Your task to perform on an android device: Toggle the flashlight Image 0: 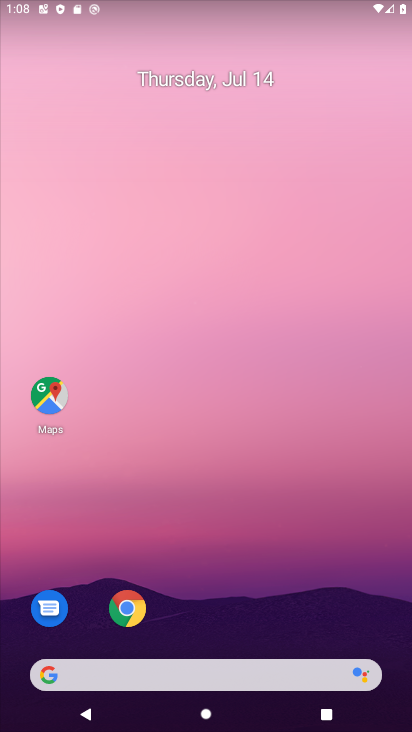
Step 0: drag from (219, 11) to (208, 425)
Your task to perform on an android device: Toggle the flashlight Image 1: 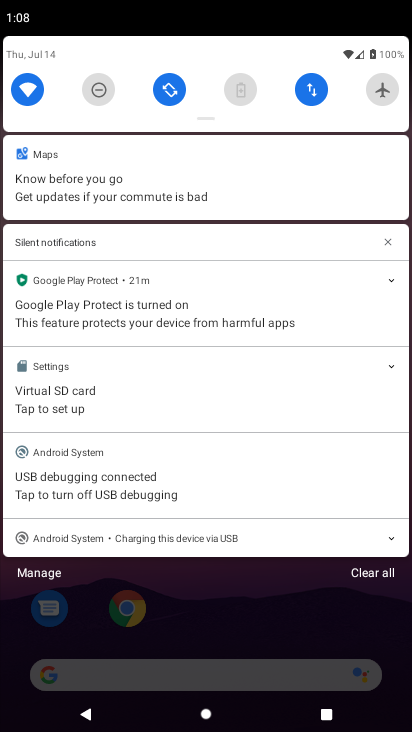
Step 1: drag from (202, 115) to (187, 399)
Your task to perform on an android device: Toggle the flashlight Image 2: 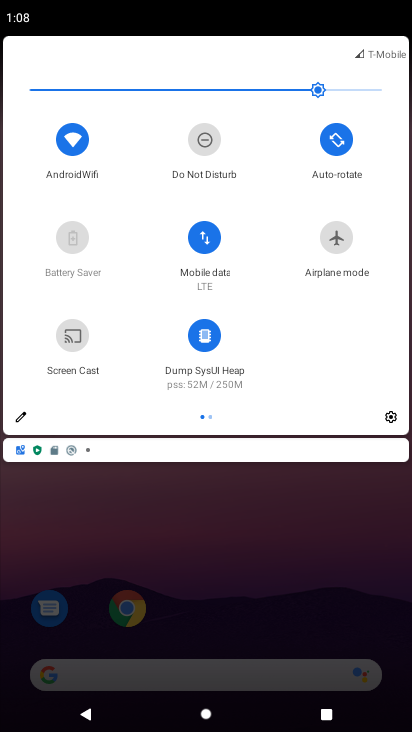
Step 2: click (19, 418)
Your task to perform on an android device: Toggle the flashlight Image 3: 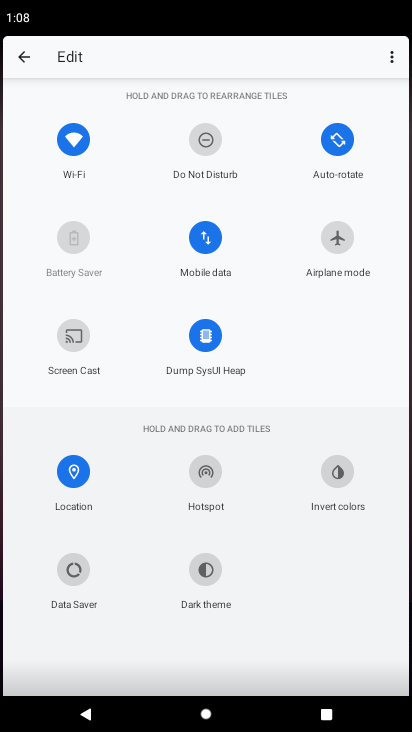
Step 3: task complete